Your task to perform on an android device: Go to Maps Image 0: 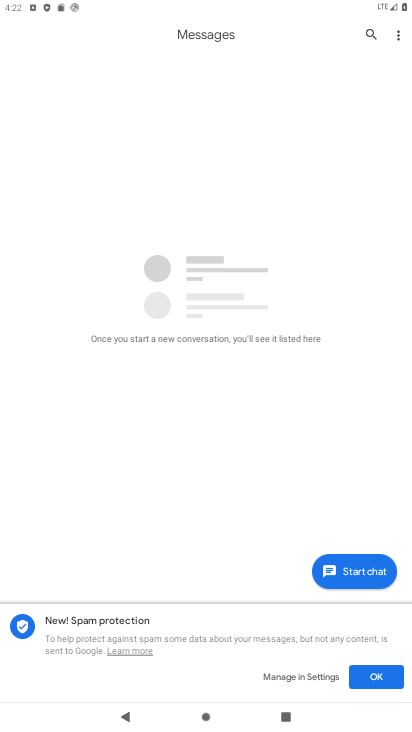
Step 0: press home button
Your task to perform on an android device: Go to Maps Image 1: 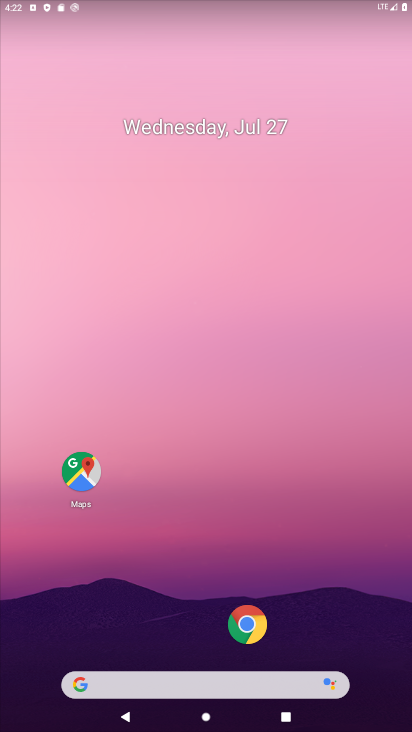
Step 1: click (83, 466)
Your task to perform on an android device: Go to Maps Image 2: 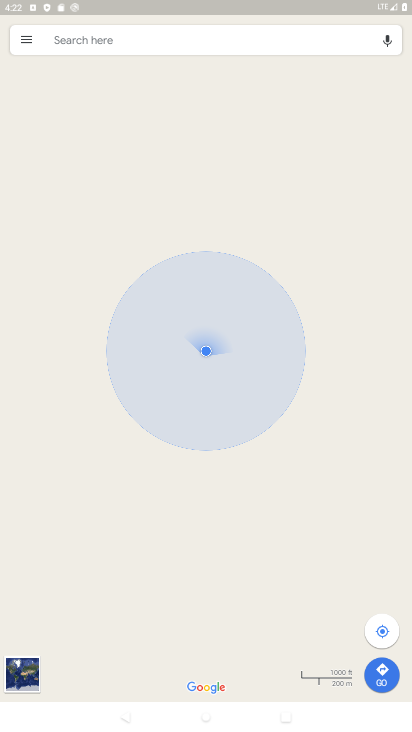
Step 2: task complete